Your task to perform on an android device: add a contact Image 0: 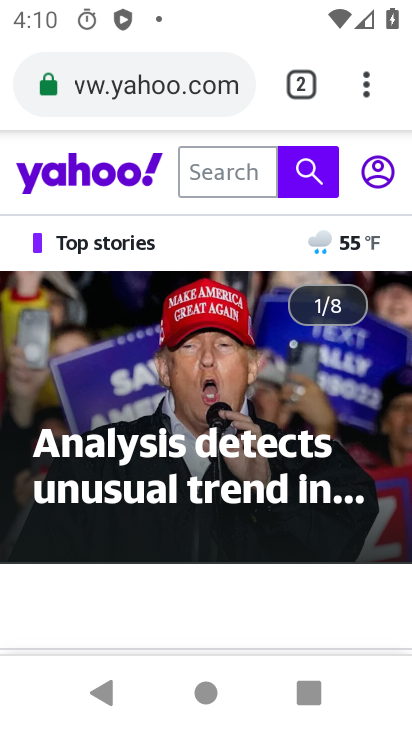
Step 0: press home button
Your task to perform on an android device: add a contact Image 1: 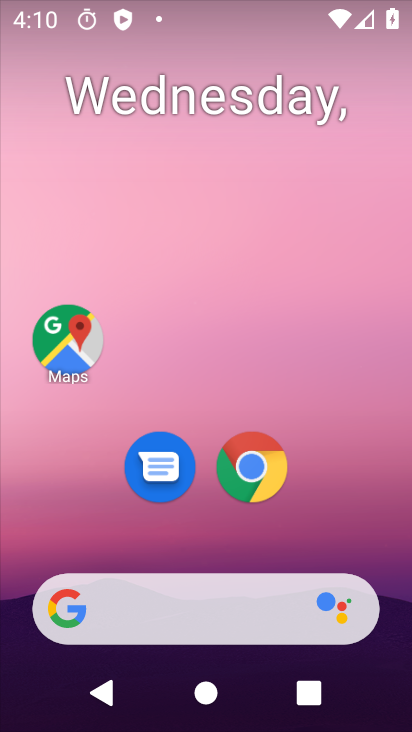
Step 1: drag from (354, 458) to (260, 18)
Your task to perform on an android device: add a contact Image 2: 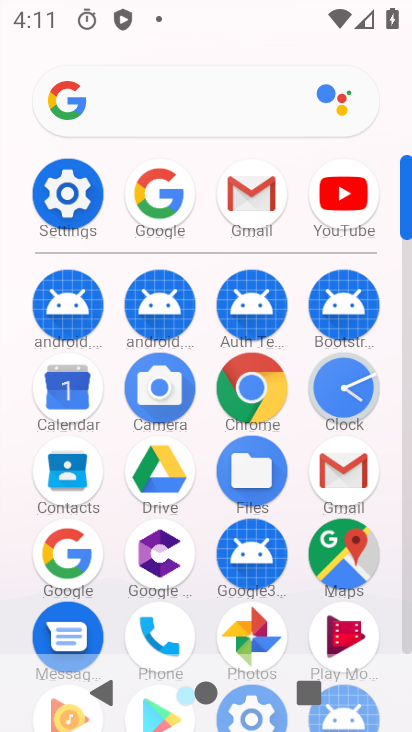
Step 2: click (63, 483)
Your task to perform on an android device: add a contact Image 3: 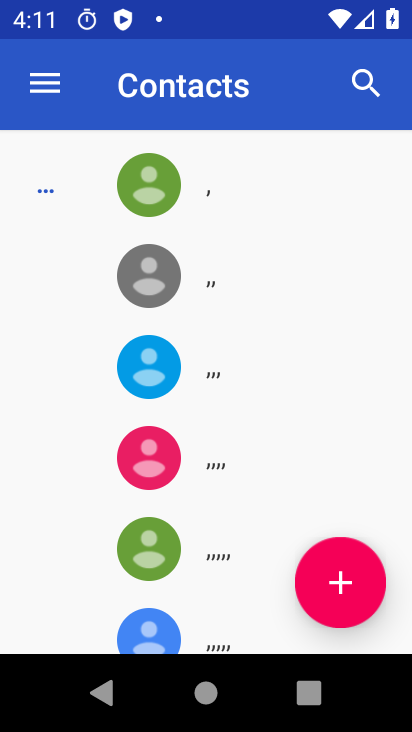
Step 3: click (343, 584)
Your task to perform on an android device: add a contact Image 4: 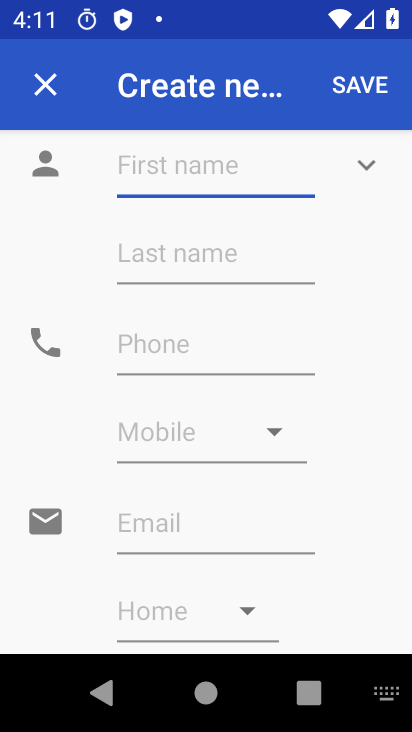
Step 4: type "gfgs"
Your task to perform on an android device: add a contact Image 5: 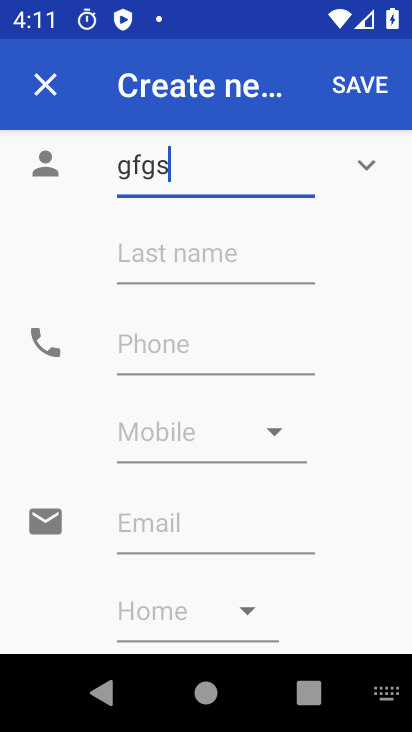
Step 5: type ""
Your task to perform on an android device: add a contact Image 6: 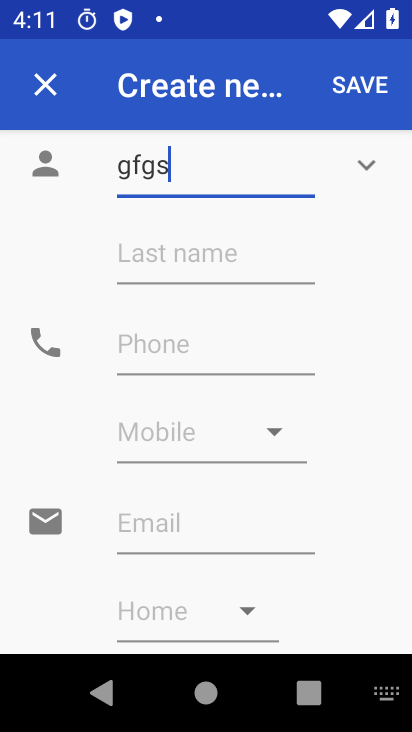
Step 6: click (248, 261)
Your task to perform on an android device: add a contact Image 7: 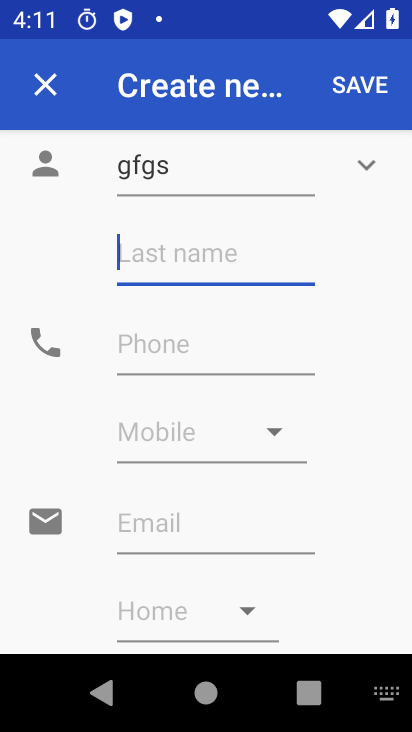
Step 7: type "gsdf"
Your task to perform on an android device: add a contact Image 8: 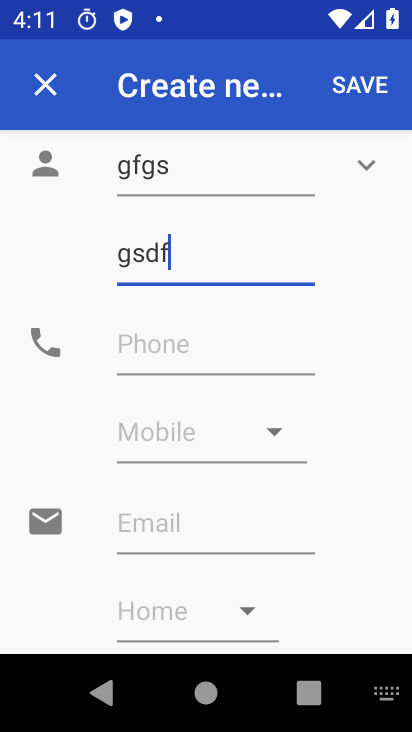
Step 8: type ""
Your task to perform on an android device: add a contact Image 9: 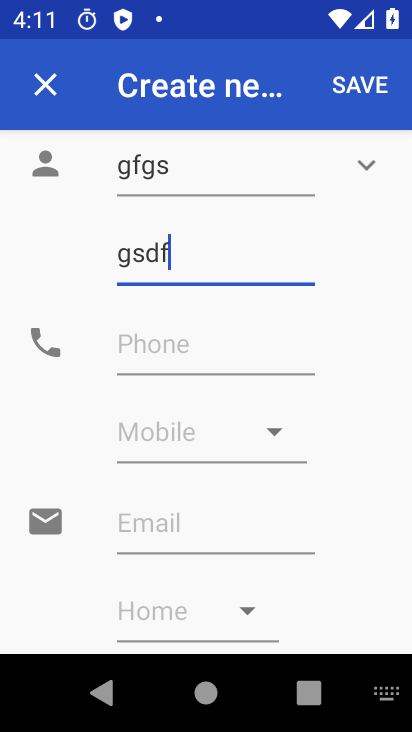
Step 9: click (275, 362)
Your task to perform on an android device: add a contact Image 10: 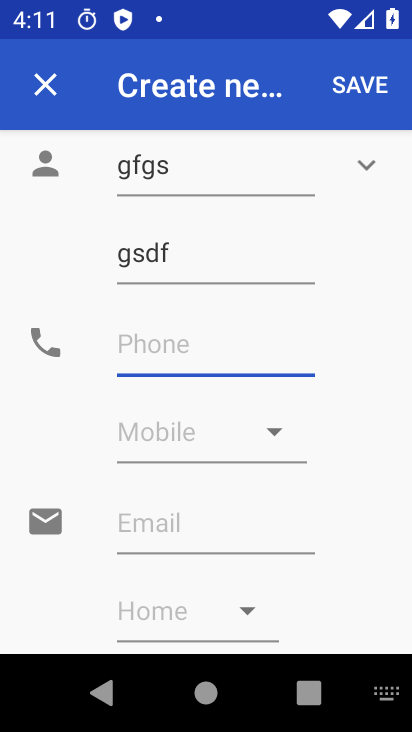
Step 10: type "634563456"
Your task to perform on an android device: add a contact Image 11: 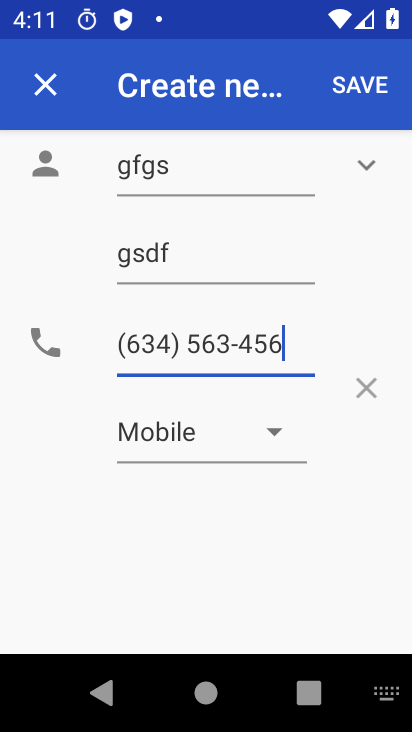
Step 11: type ""
Your task to perform on an android device: add a contact Image 12: 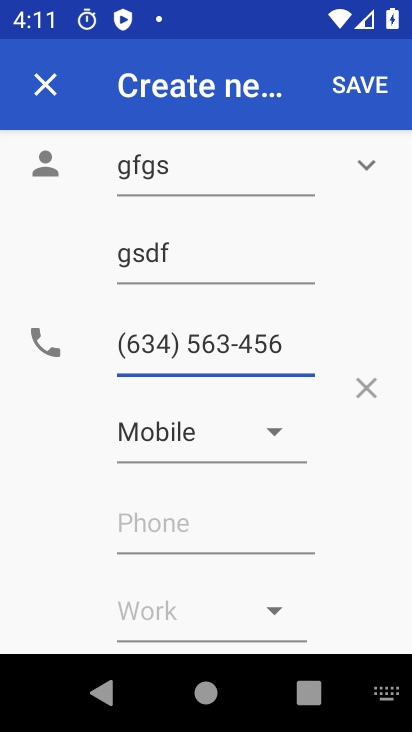
Step 12: click (361, 92)
Your task to perform on an android device: add a contact Image 13: 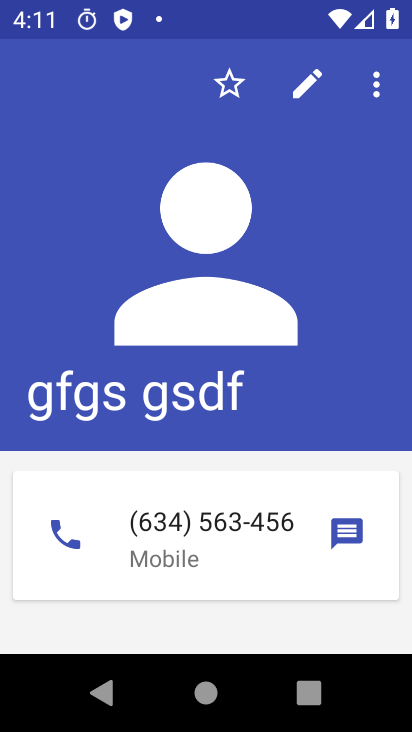
Step 13: task complete